Your task to perform on an android device: Open Youtube and go to the subscriptions tab Image 0: 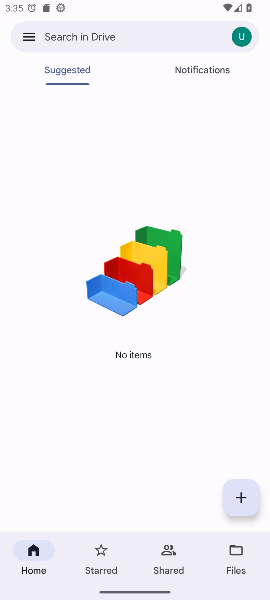
Step 0: press back button
Your task to perform on an android device: Open Youtube and go to the subscriptions tab Image 1: 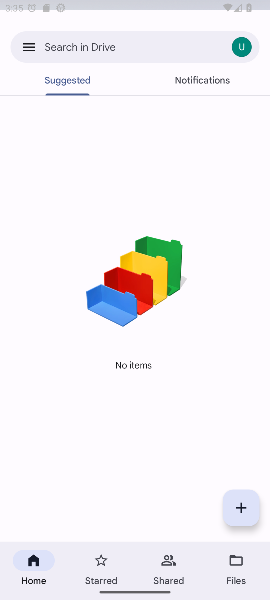
Step 1: press home button
Your task to perform on an android device: Open Youtube and go to the subscriptions tab Image 2: 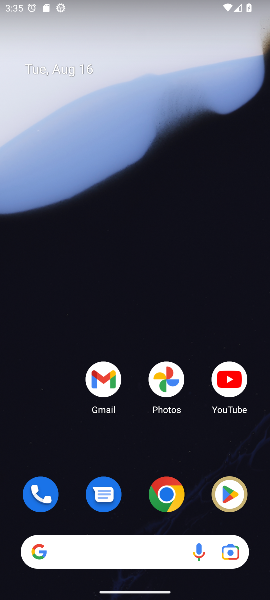
Step 2: drag from (174, 520) to (139, 34)
Your task to perform on an android device: Open Youtube and go to the subscriptions tab Image 3: 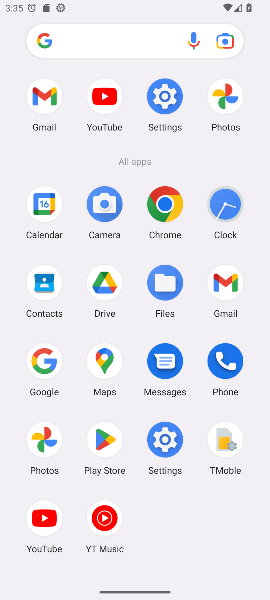
Step 3: click (46, 521)
Your task to perform on an android device: Open Youtube and go to the subscriptions tab Image 4: 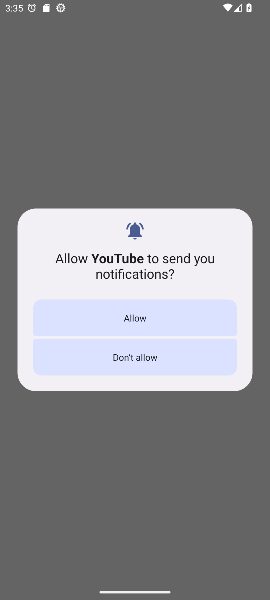
Step 4: click (172, 323)
Your task to perform on an android device: Open Youtube and go to the subscriptions tab Image 5: 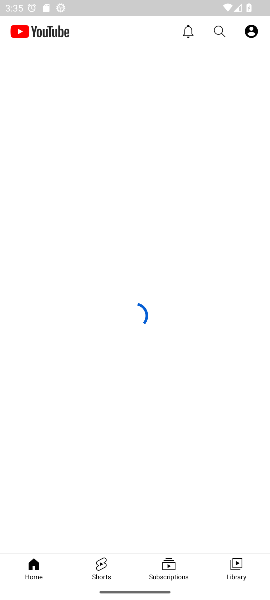
Step 5: click (195, 565)
Your task to perform on an android device: Open Youtube and go to the subscriptions tab Image 6: 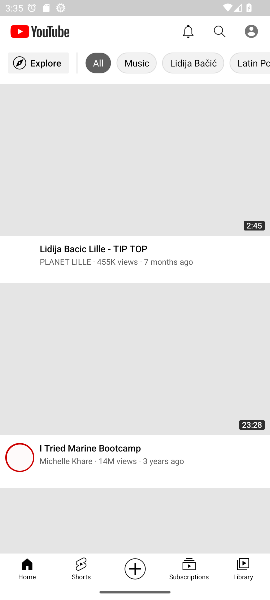
Step 6: click (171, 580)
Your task to perform on an android device: Open Youtube and go to the subscriptions tab Image 7: 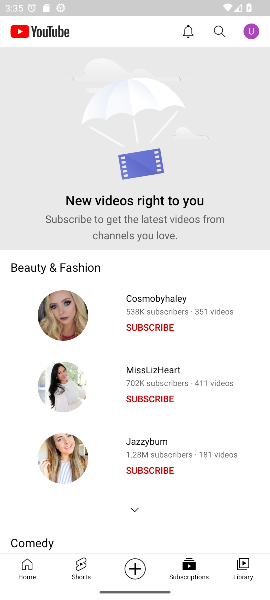
Step 7: task complete